Your task to perform on an android device: show emergency info Image 0: 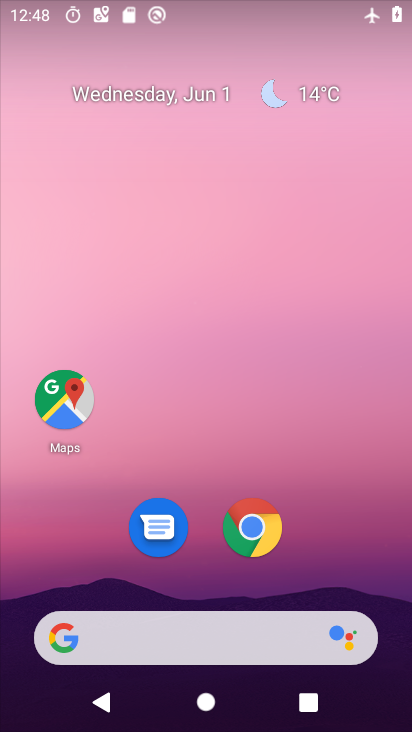
Step 0: drag from (330, 575) to (256, 3)
Your task to perform on an android device: show emergency info Image 1: 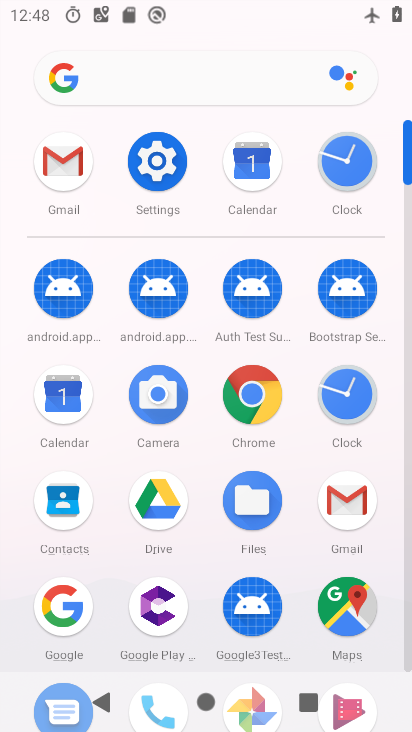
Step 1: click (160, 157)
Your task to perform on an android device: show emergency info Image 2: 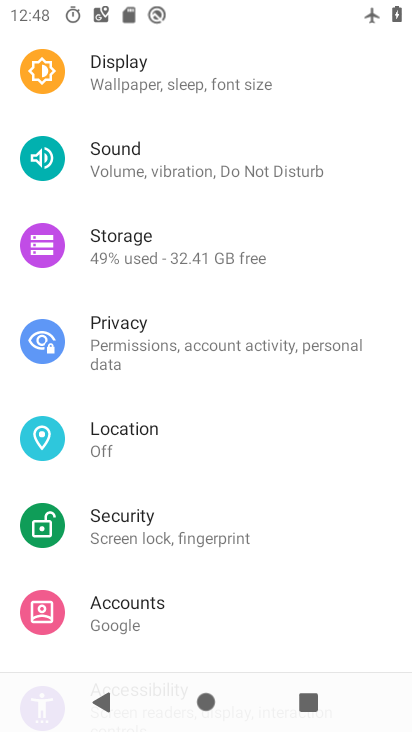
Step 2: drag from (326, 641) to (331, 42)
Your task to perform on an android device: show emergency info Image 3: 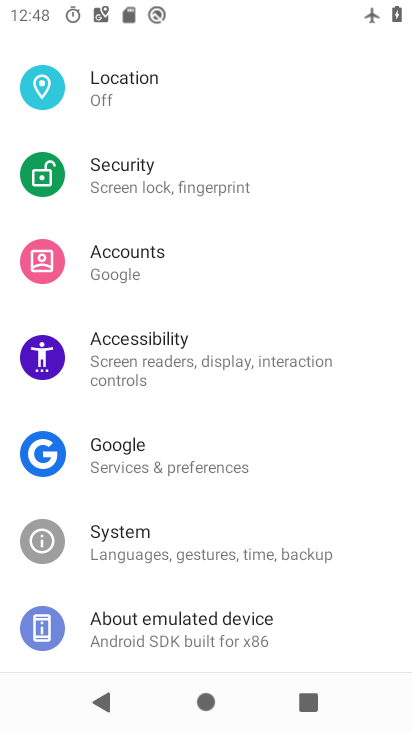
Step 3: click (156, 633)
Your task to perform on an android device: show emergency info Image 4: 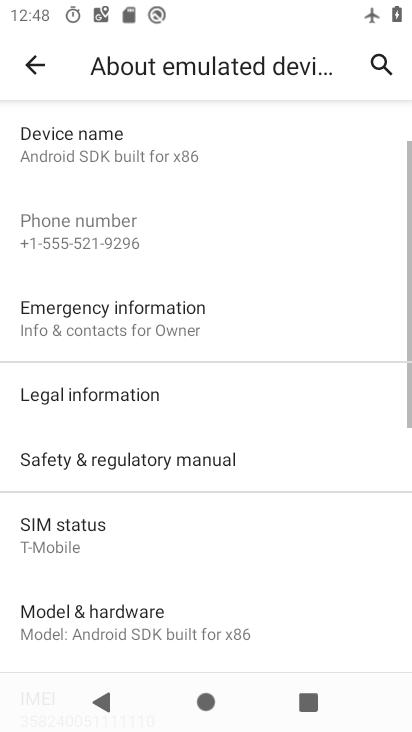
Step 4: click (150, 317)
Your task to perform on an android device: show emergency info Image 5: 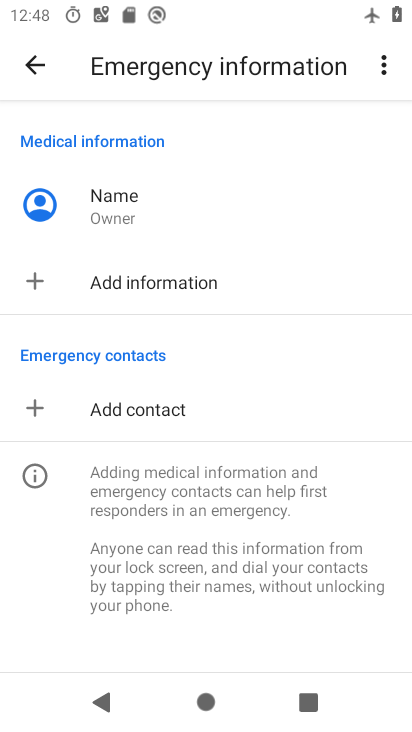
Step 5: task complete